Your task to perform on an android device: add a contact in the contacts app Image 0: 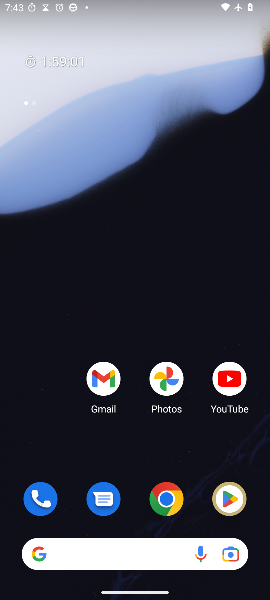
Step 0: drag from (84, 559) to (151, 81)
Your task to perform on an android device: add a contact in the contacts app Image 1: 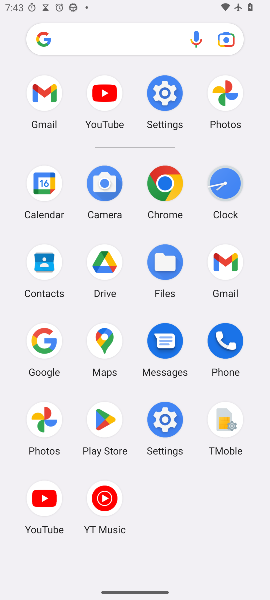
Step 1: click (231, 348)
Your task to perform on an android device: add a contact in the contacts app Image 2: 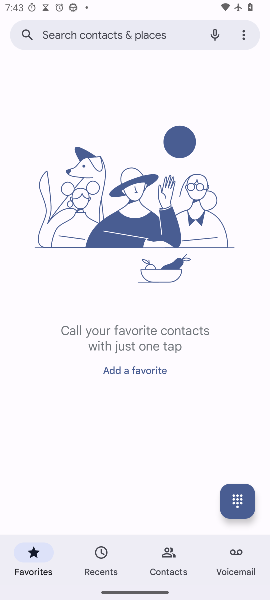
Step 2: click (172, 557)
Your task to perform on an android device: add a contact in the contacts app Image 3: 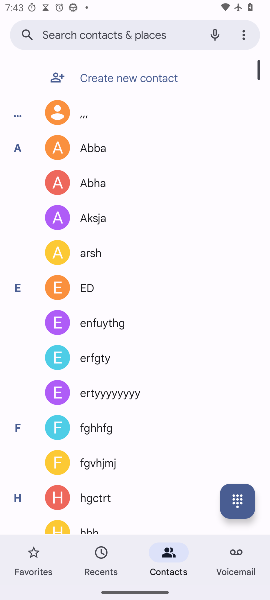
Step 3: click (84, 78)
Your task to perform on an android device: add a contact in the contacts app Image 4: 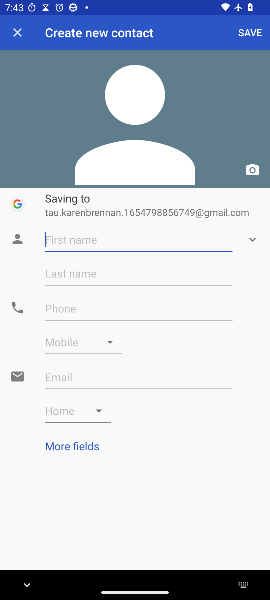
Step 4: type "tyuuu"
Your task to perform on an android device: add a contact in the contacts app Image 5: 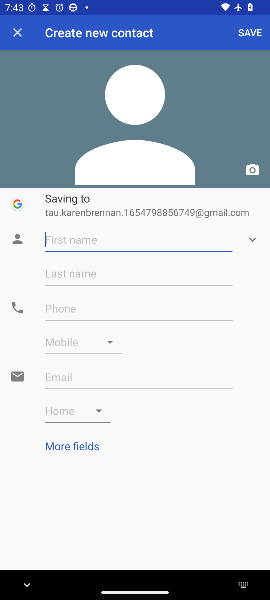
Step 5: click (75, 313)
Your task to perform on an android device: add a contact in the contacts app Image 6: 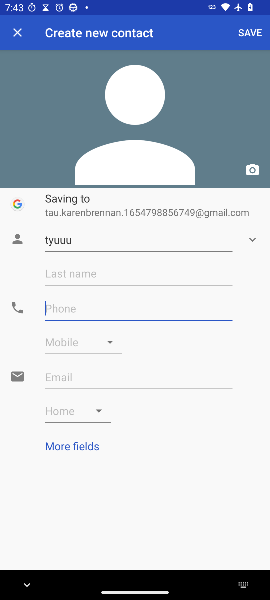
Step 6: type "4676555"
Your task to perform on an android device: add a contact in the contacts app Image 7: 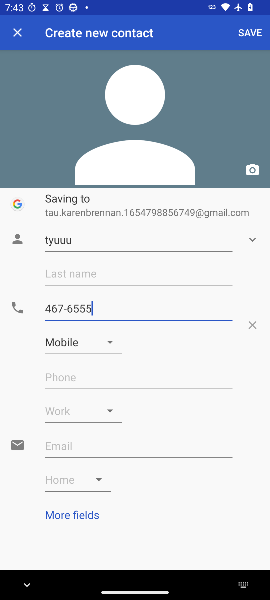
Step 7: click (249, 28)
Your task to perform on an android device: add a contact in the contacts app Image 8: 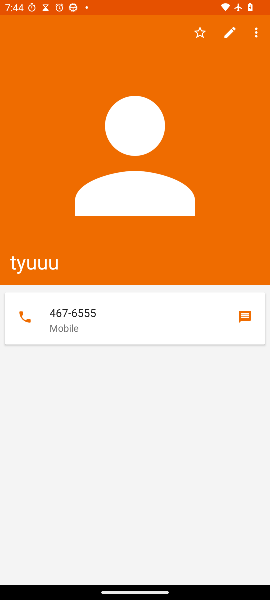
Step 8: task complete